Your task to perform on an android device: change the upload size in google photos Image 0: 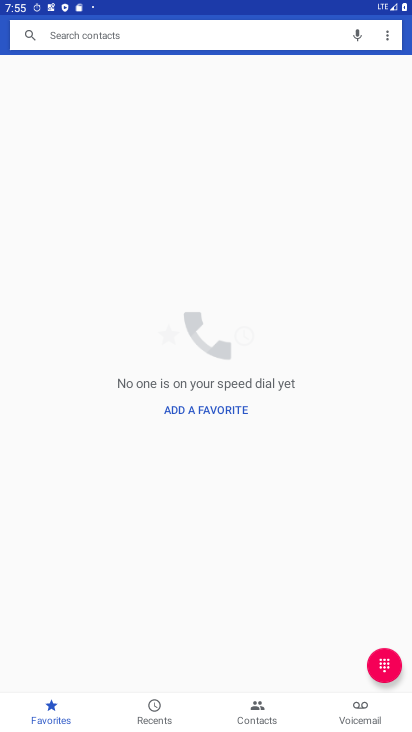
Step 0: press home button
Your task to perform on an android device: change the upload size in google photos Image 1: 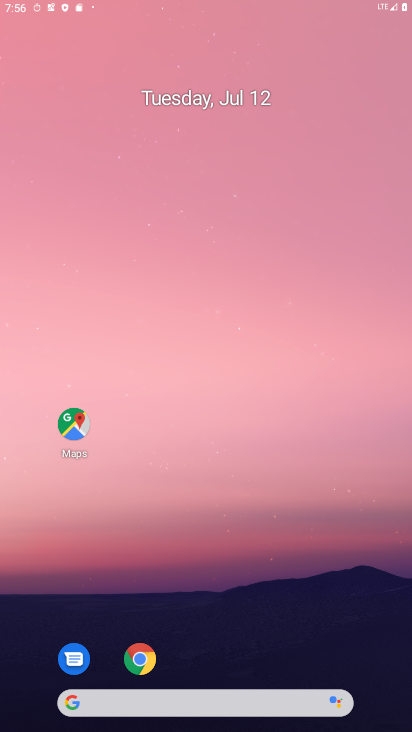
Step 1: drag from (379, 699) to (246, 29)
Your task to perform on an android device: change the upload size in google photos Image 2: 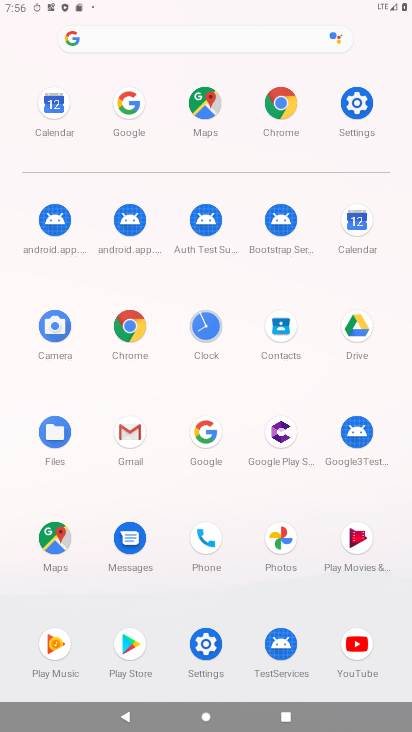
Step 2: click (284, 529)
Your task to perform on an android device: change the upload size in google photos Image 3: 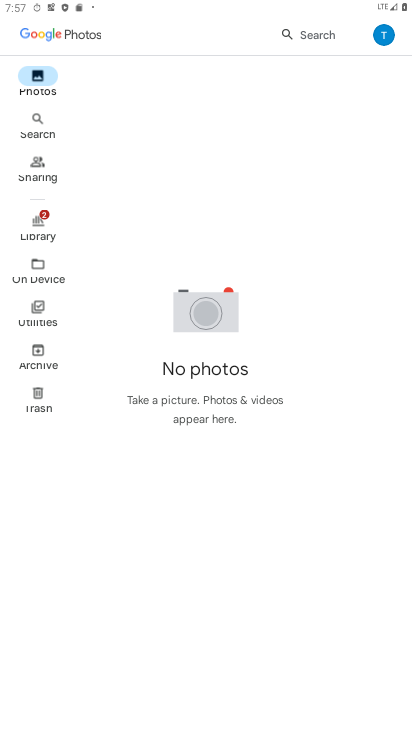
Step 3: click (388, 30)
Your task to perform on an android device: change the upload size in google photos Image 4: 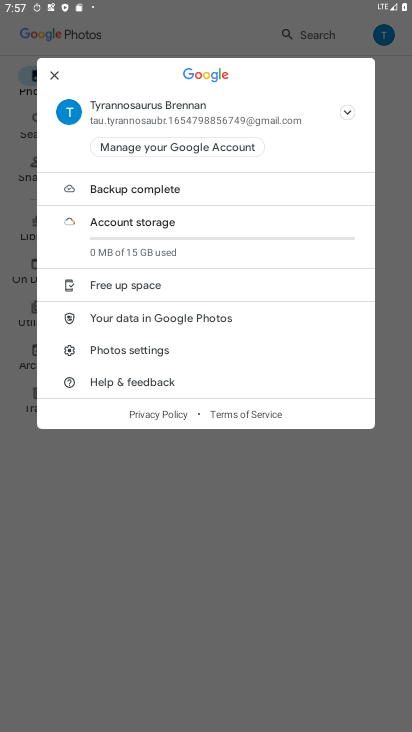
Step 4: click (135, 345)
Your task to perform on an android device: change the upload size in google photos Image 5: 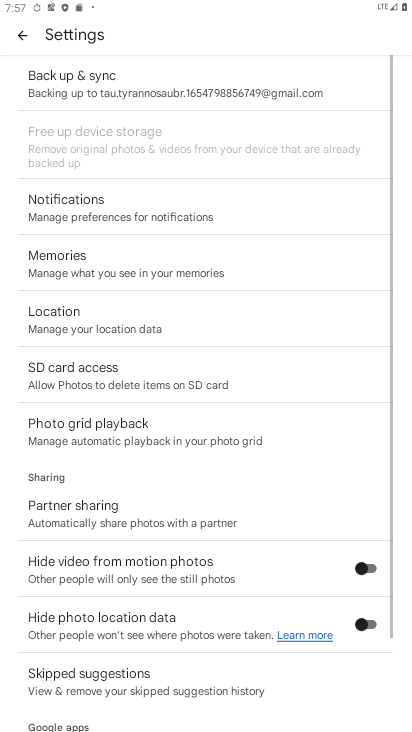
Step 5: click (157, 104)
Your task to perform on an android device: change the upload size in google photos Image 6: 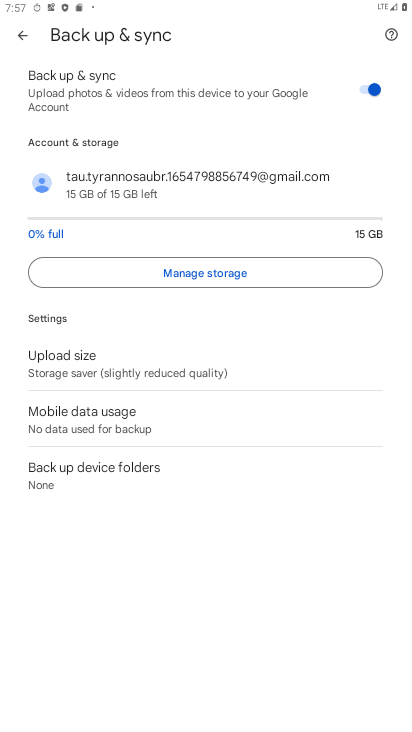
Step 6: click (115, 366)
Your task to perform on an android device: change the upload size in google photos Image 7: 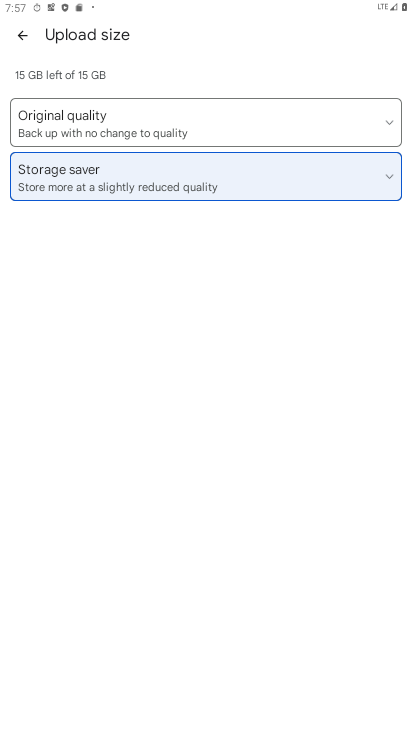
Step 7: click (148, 113)
Your task to perform on an android device: change the upload size in google photos Image 8: 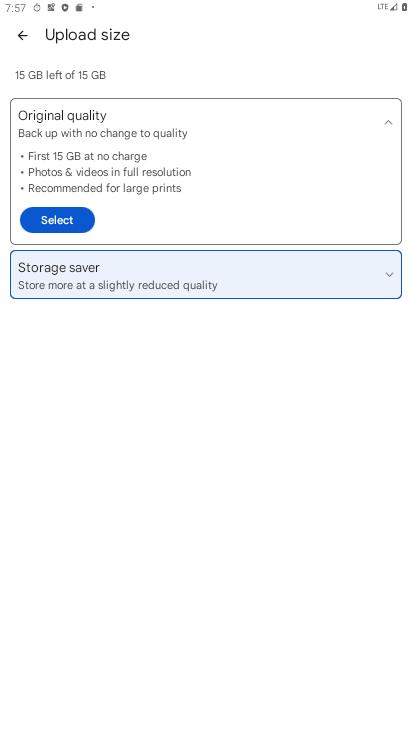
Step 8: click (56, 220)
Your task to perform on an android device: change the upload size in google photos Image 9: 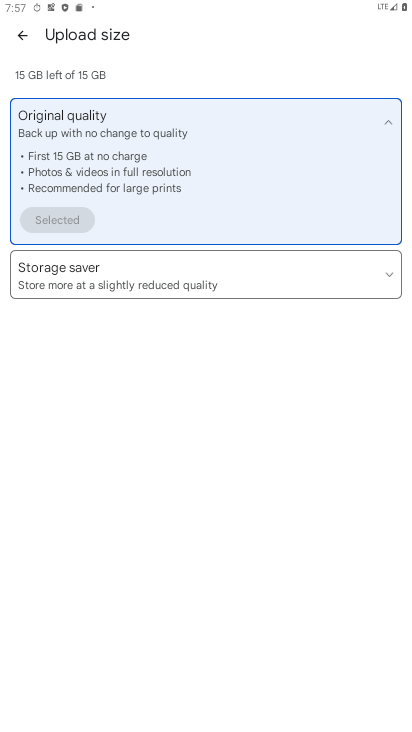
Step 9: task complete